Your task to perform on an android device: turn vacation reply on in the gmail app Image 0: 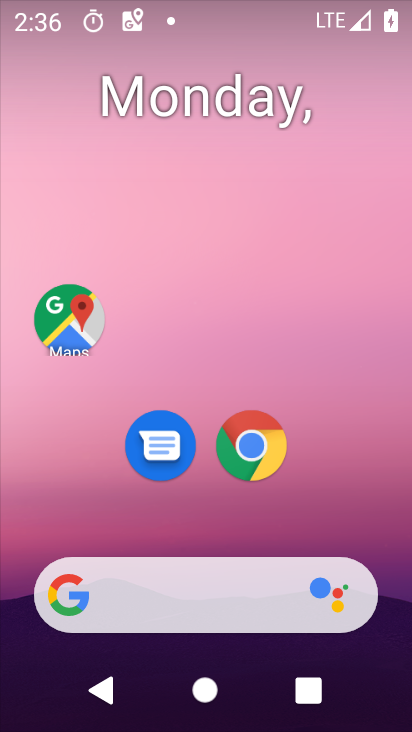
Step 0: click (169, 572)
Your task to perform on an android device: turn vacation reply on in the gmail app Image 1: 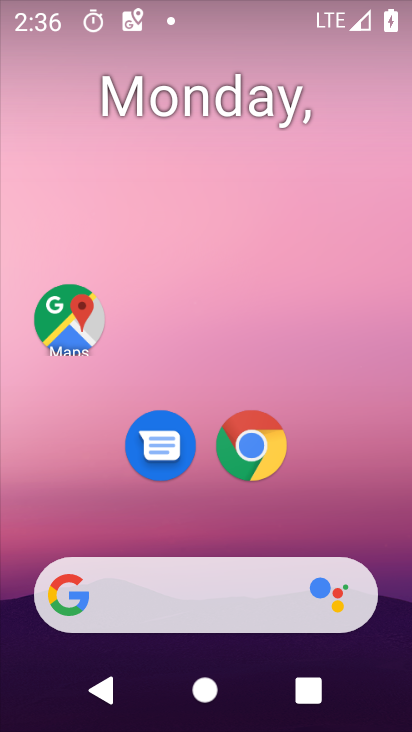
Step 1: drag from (169, 572) to (53, 185)
Your task to perform on an android device: turn vacation reply on in the gmail app Image 2: 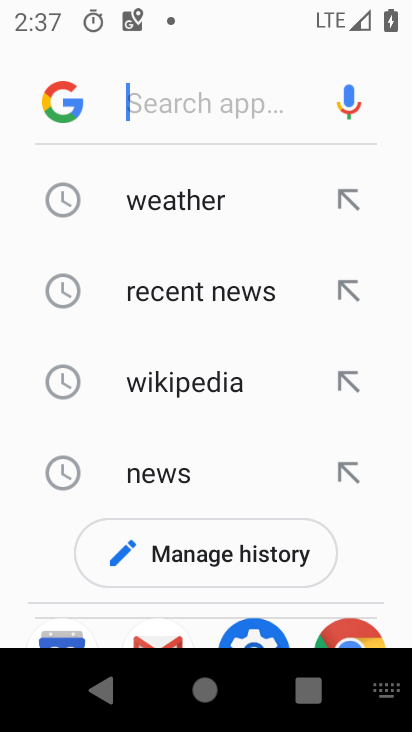
Step 2: press home button
Your task to perform on an android device: turn vacation reply on in the gmail app Image 3: 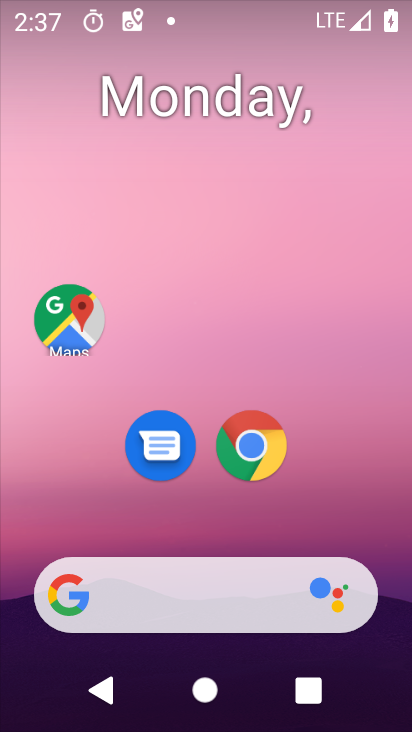
Step 3: drag from (248, 602) to (216, 126)
Your task to perform on an android device: turn vacation reply on in the gmail app Image 4: 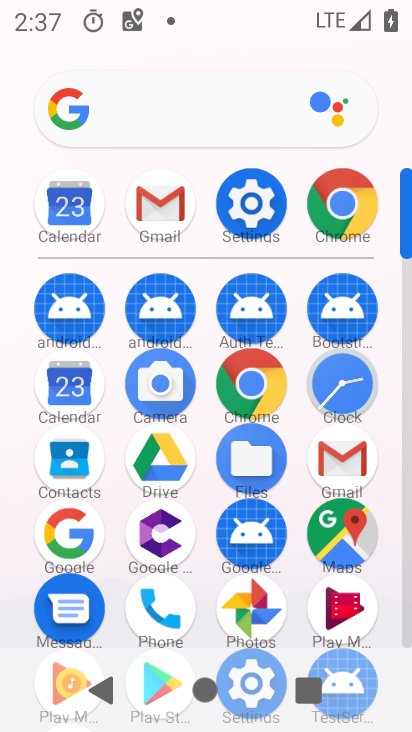
Step 4: click (236, 220)
Your task to perform on an android device: turn vacation reply on in the gmail app Image 5: 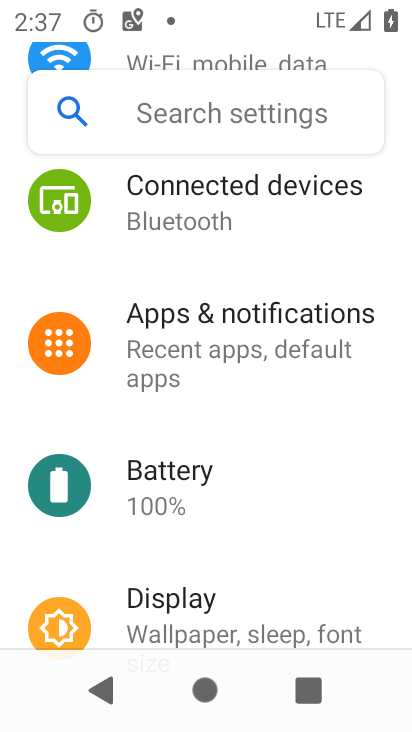
Step 5: press home button
Your task to perform on an android device: turn vacation reply on in the gmail app Image 6: 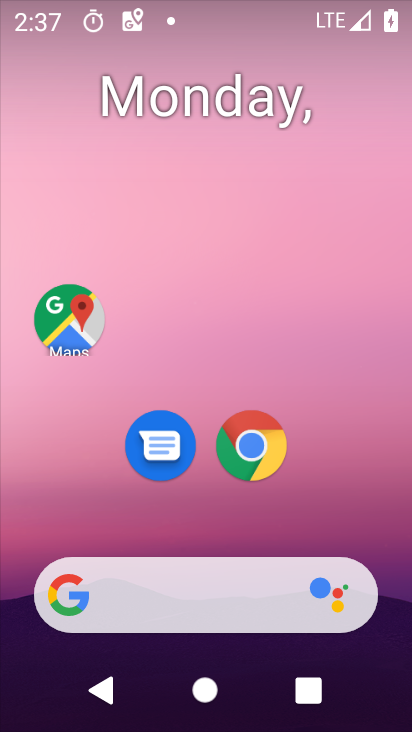
Step 6: drag from (212, 572) to (166, 56)
Your task to perform on an android device: turn vacation reply on in the gmail app Image 7: 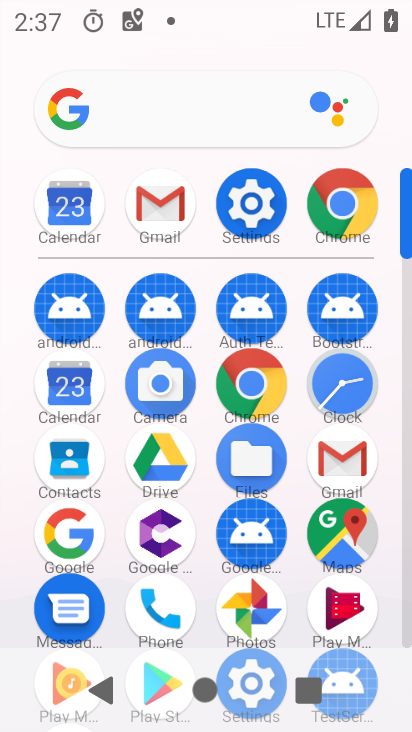
Step 7: click (157, 227)
Your task to perform on an android device: turn vacation reply on in the gmail app Image 8: 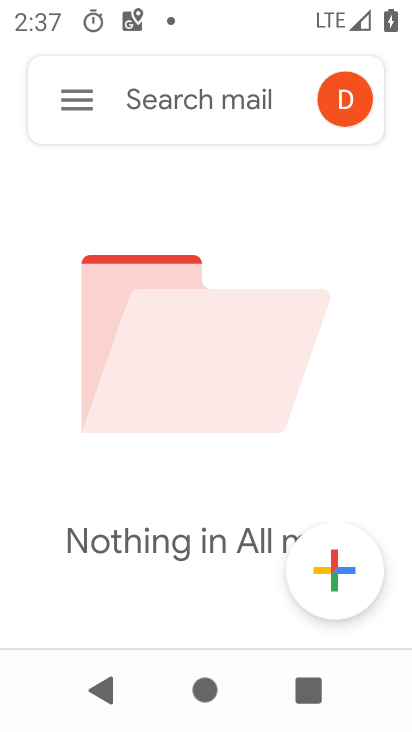
Step 8: click (85, 105)
Your task to perform on an android device: turn vacation reply on in the gmail app Image 9: 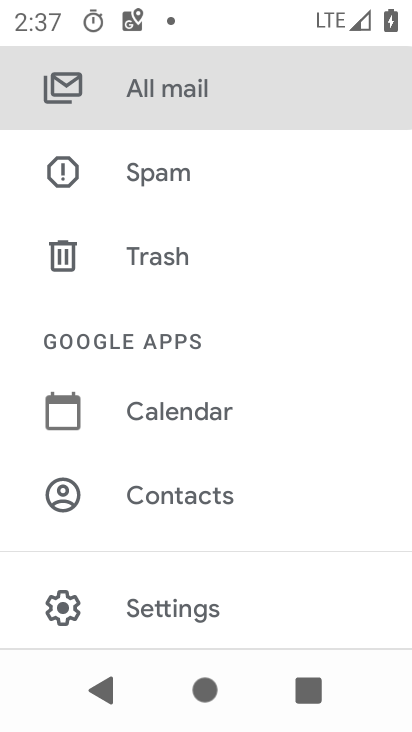
Step 9: click (150, 598)
Your task to perform on an android device: turn vacation reply on in the gmail app Image 10: 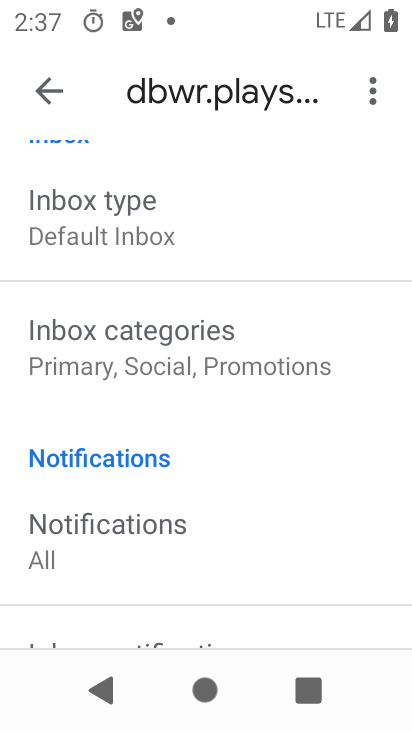
Step 10: drag from (105, 548) to (89, 86)
Your task to perform on an android device: turn vacation reply on in the gmail app Image 11: 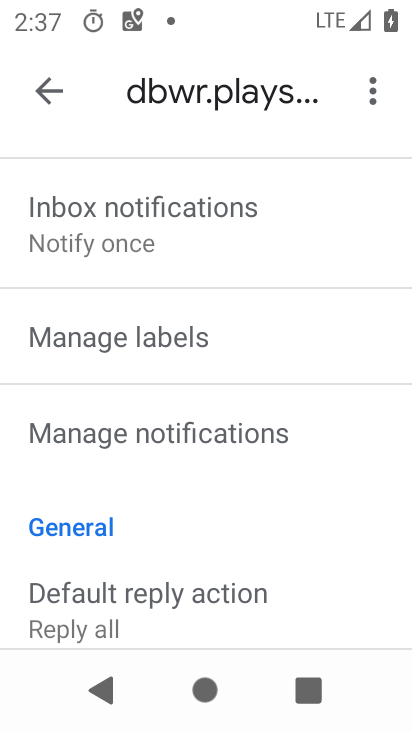
Step 11: drag from (114, 467) to (102, 39)
Your task to perform on an android device: turn vacation reply on in the gmail app Image 12: 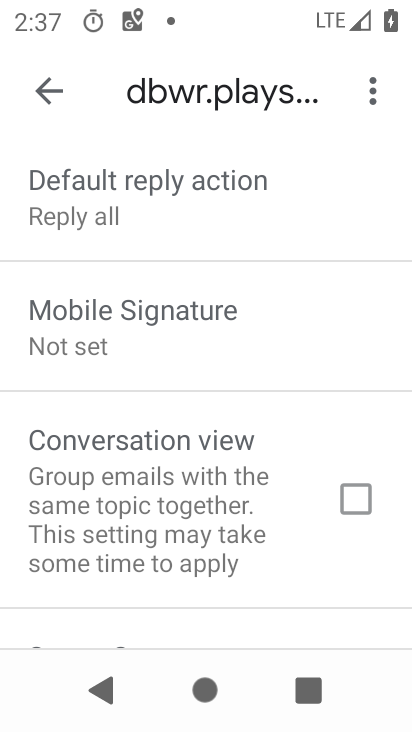
Step 12: drag from (135, 460) to (102, 20)
Your task to perform on an android device: turn vacation reply on in the gmail app Image 13: 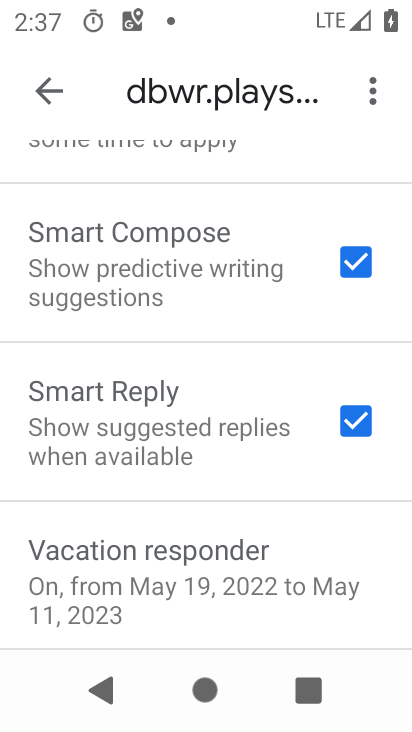
Step 13: drag from (146, 474) to (128, 279)
Your task to perform on an android device: turn vacation reply on in the gmail app Image 14: 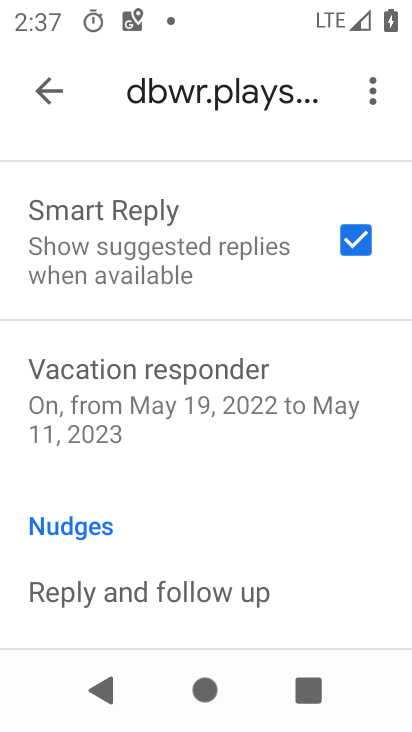
Step 14: click (149, 364)
Your task to perform on an android device: turn vacation reply on in the gmail app Image 15: 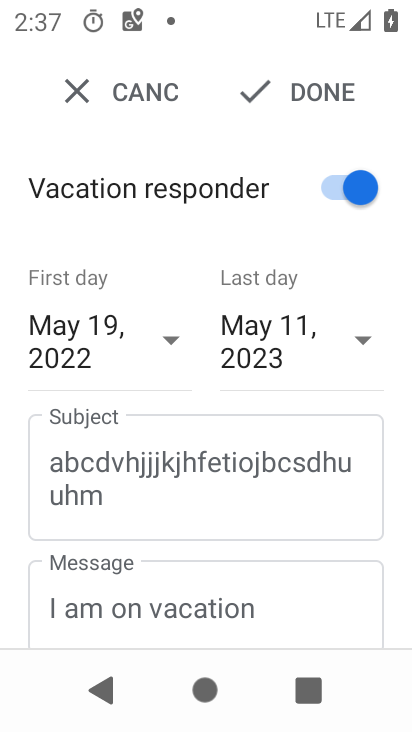
Step 15: click (276, 98)
Your task to perform on an android device: turn vacation reply on in the gmail app Image 16: 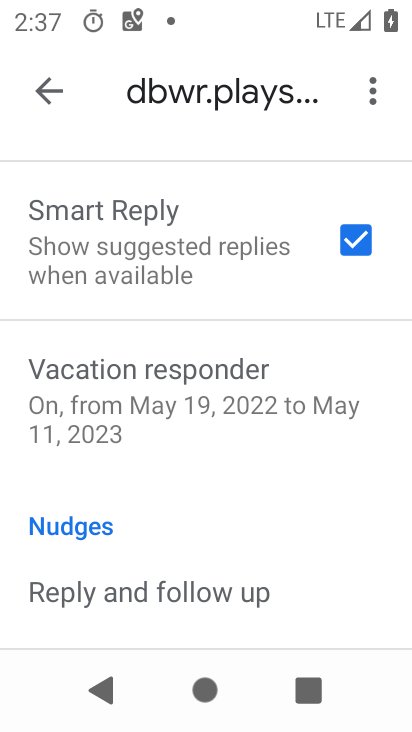
Step 16: task complete